Your task to perform on an android device: add a label to a message in the gmail app Image 0: 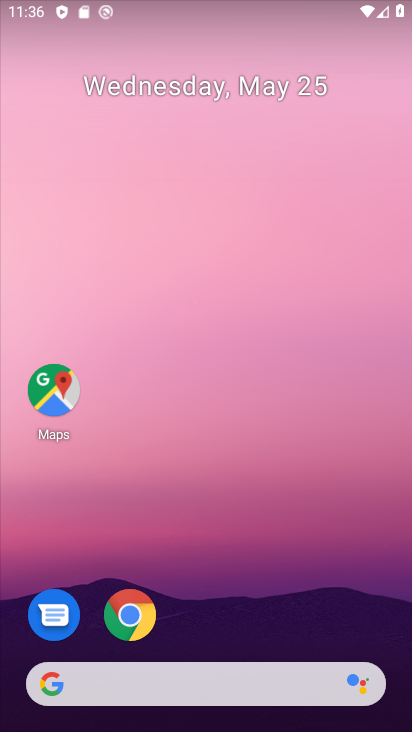
Step 0: drag from (362, 623) to (286, 3)
Your task to perform on an android device: add a label to a message in the gmail app Image 1: 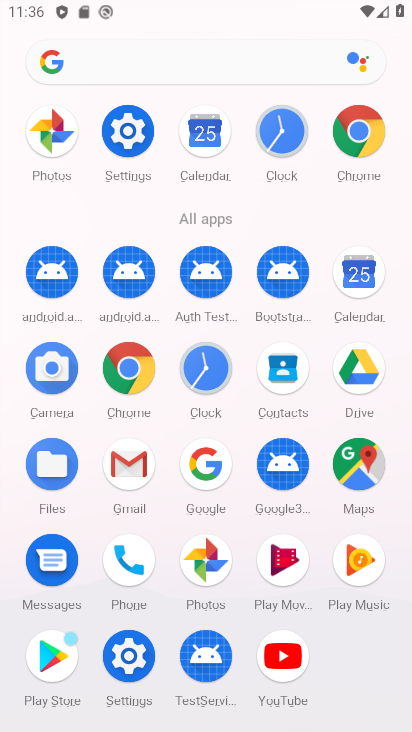
Step 1: click (138, 464)
Your task to perform on an android device: add a label to a message in the gmail app Image 2: 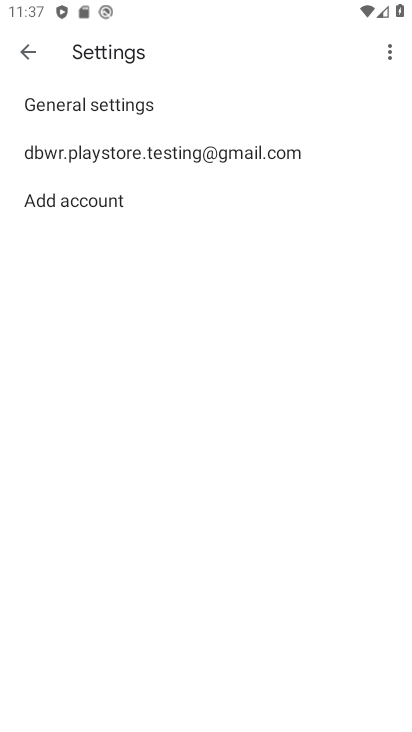
Step 2: task complete